Your task to perform on an android device: turn notification dots on Image 0: 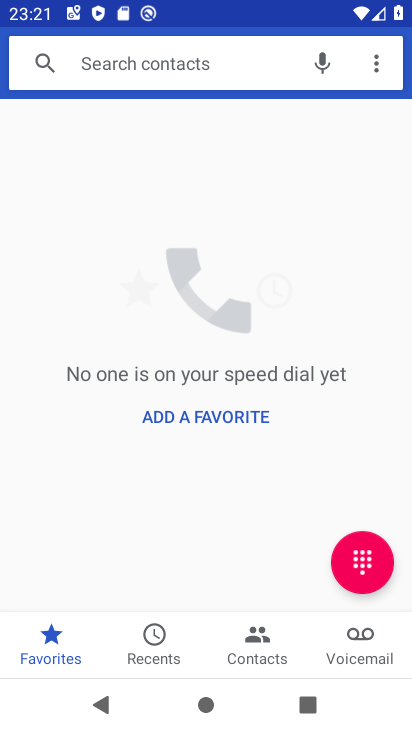
Step 0: press home button
Your task to perform on an android device: turn notification dots on Image 1: 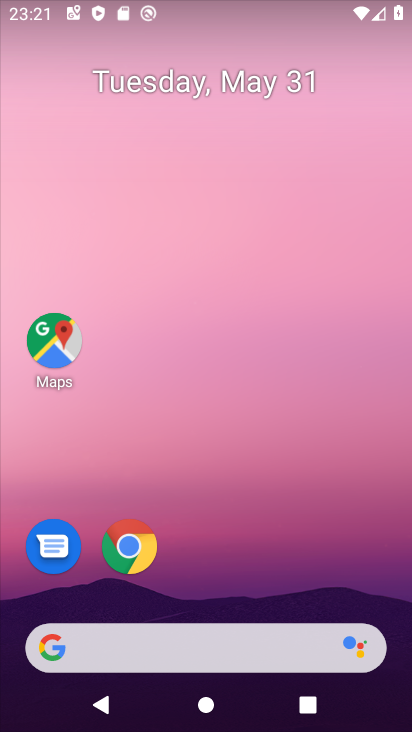
Step 1: drag from (226, 602) to (183, 212)
Your task to perform on an android device: turn notification dots on Image 2: 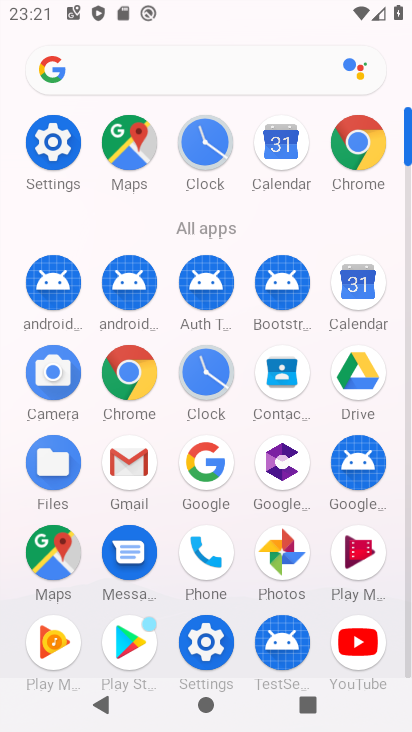
Step 2: click (54, 159)
Your task to perform on an android device: turn notification dots on Image 3: 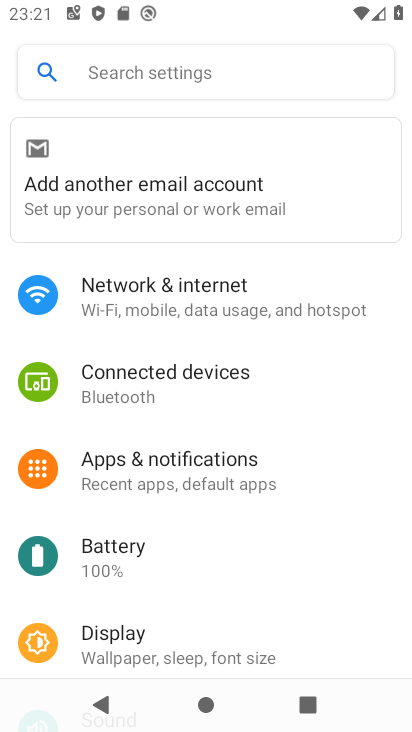
Step 3: drag from (195, 580) to (191, 410)
Your task to perform on an android device: turn notification dots on Image 4: 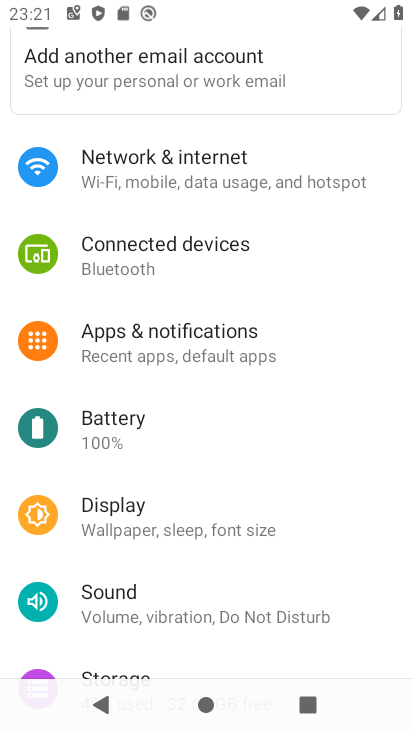
Step 4: click (226, 342)
Your task to perform on an android device: turn notification dots on Image 5: 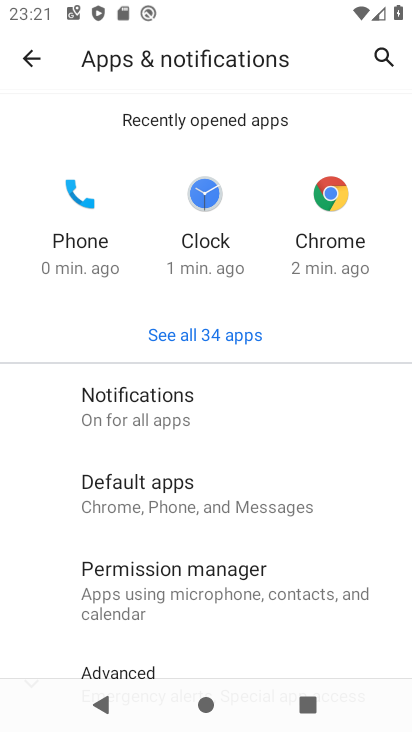
Step 5: click (245, 416)
Your task to perform on an android device: turn notification dots on Image 6: 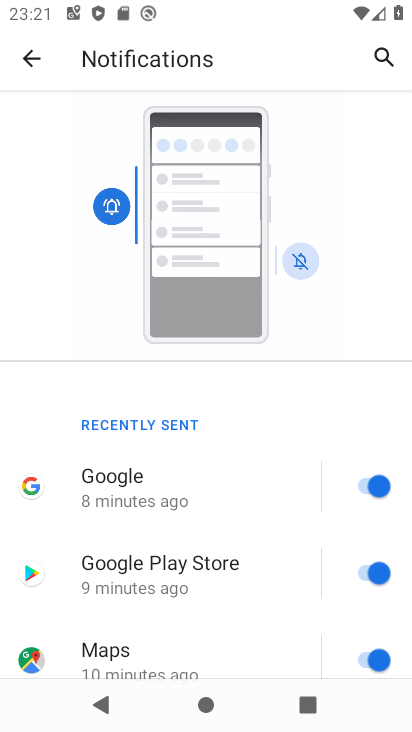
Step 6: drag from (259, 626) to (229, 238)
Your task to perform on an android device: turn notification dots on Image 7: 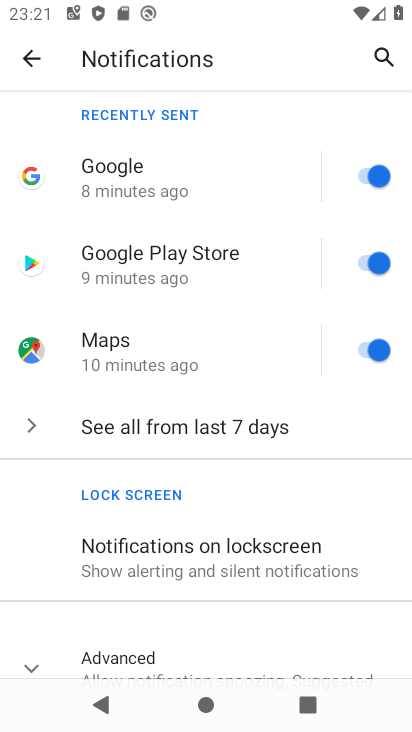
Step 7: drag from (251, 606) to (216, 352)
Your task to perform on an android device: turn notification dots on Image 8: 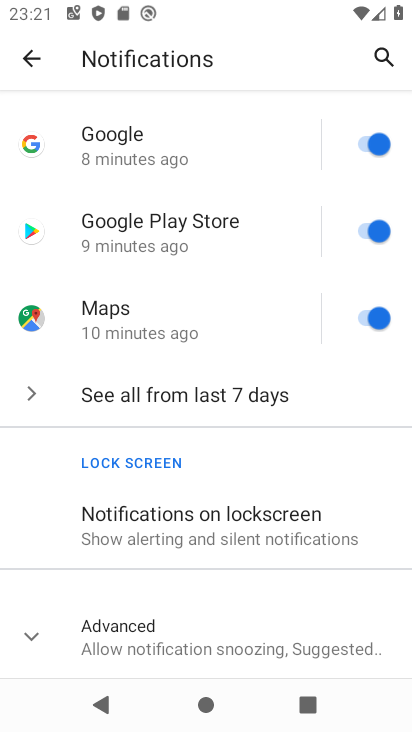
Step 8: click (217, 629)
Your task to perform on an android device: turn notification dots on Image 9: 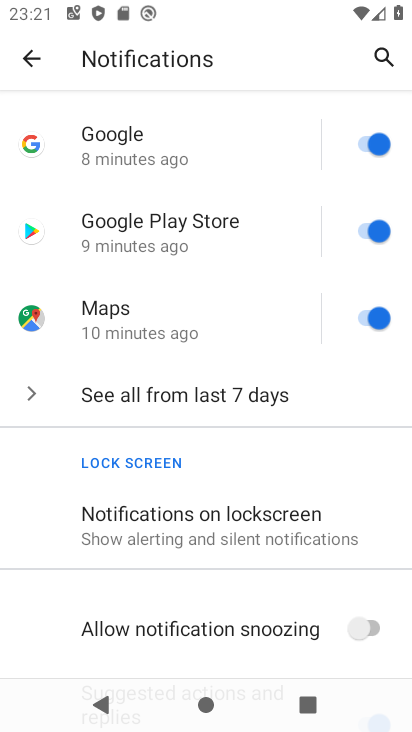
Step 9: task complete